Your task to perform on an android device: Go to display settings Image 0: 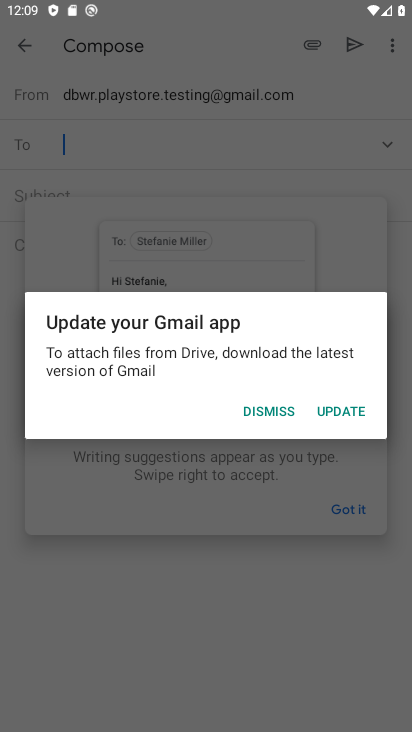
Step 0: press home button
Your task to perform on an android device: Go to display settings Image 1: 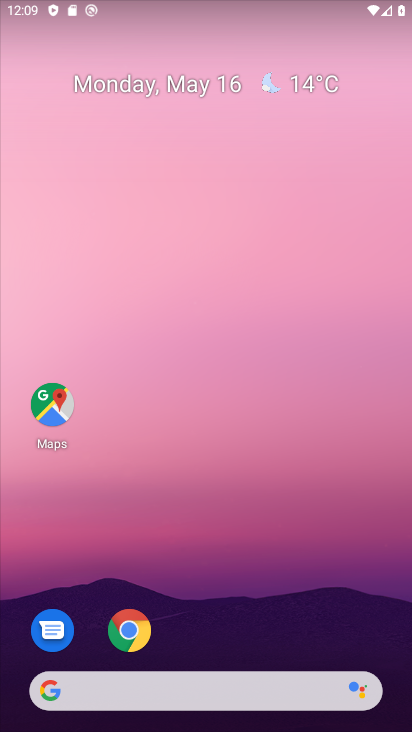
Step 1: drag from (291, 637) to (288, 92)
Your task to perform on an android device: Go to display settings Image 2: 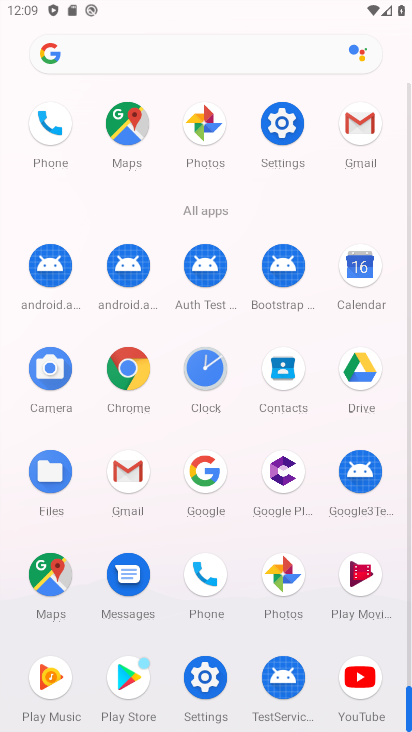
Step 2: drag from (172, 235) to (190, 5)
Your task to perform on an android device: Go to display settings Image 3: 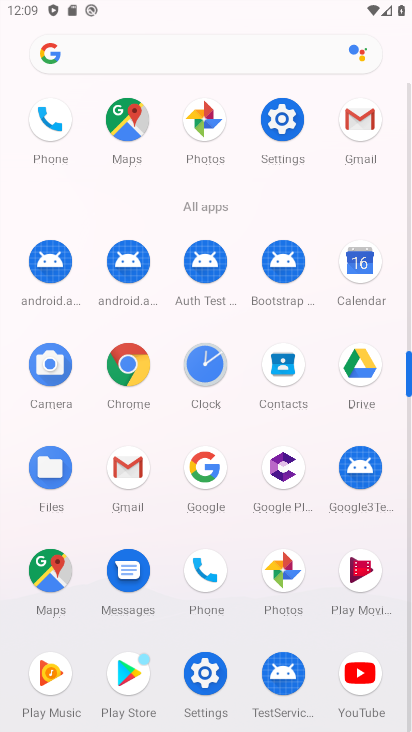
Step 3: click (208, 689)
Your task to perform on an android device: Go to display settings Image 4: 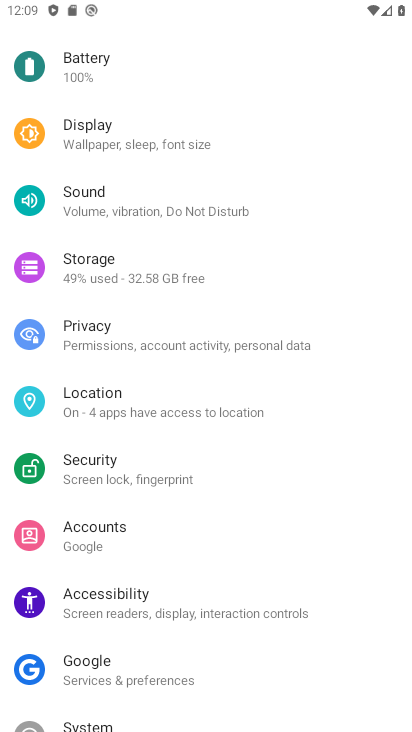
Step 4: click (123, 142)
Your task to perform on an android device: Go to display settings Image 5: 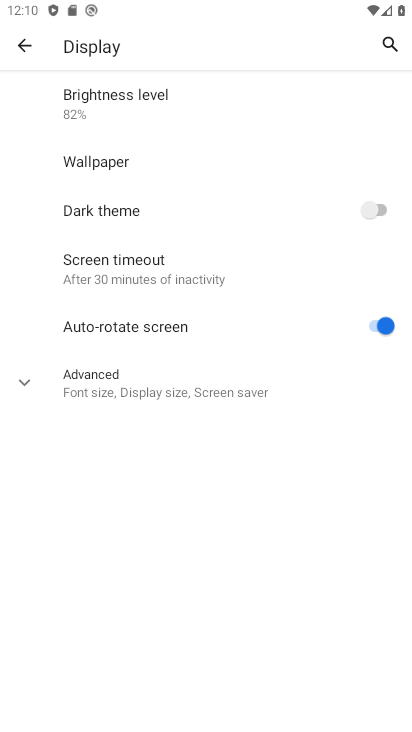
Step 5: task complete